Your task to perform on an android device: set the timer Image 0: 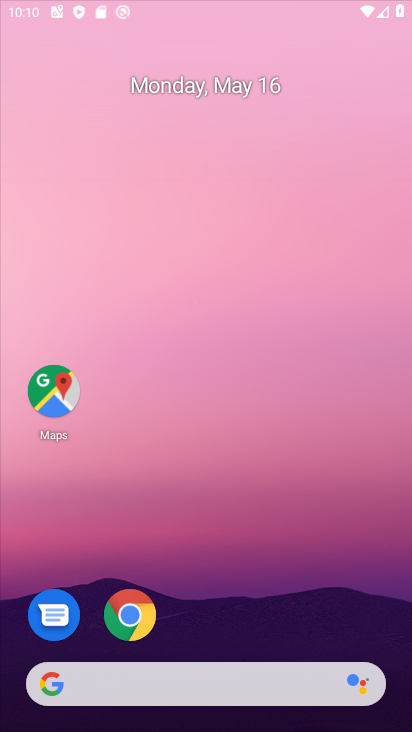
Step 0: press home button
Your task to perform on an android device: set the timer Image 1: 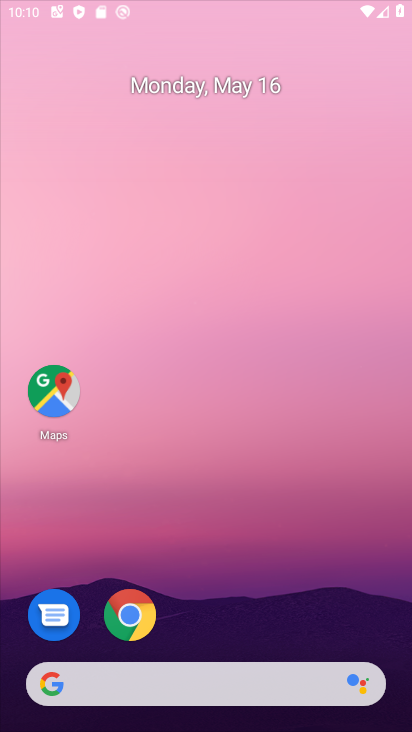
Step 1: click (245, 337)
Your task to perform on an android device: set the timer Image 2: 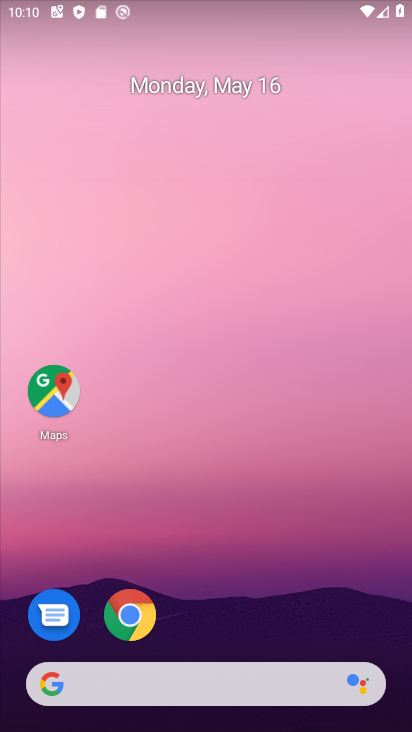
Step 2: drag from (248, 715) to (201, 192)
Your task to perform on an android device: set the timer Image 3: 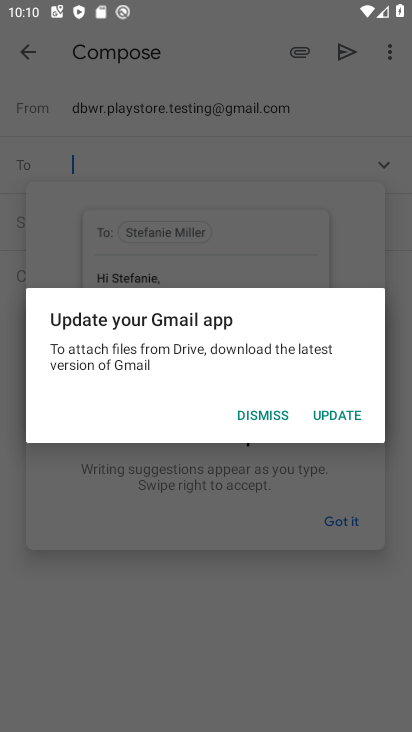
Step 3: press home button
Your task to perform on an android device: set the timer Image 4: 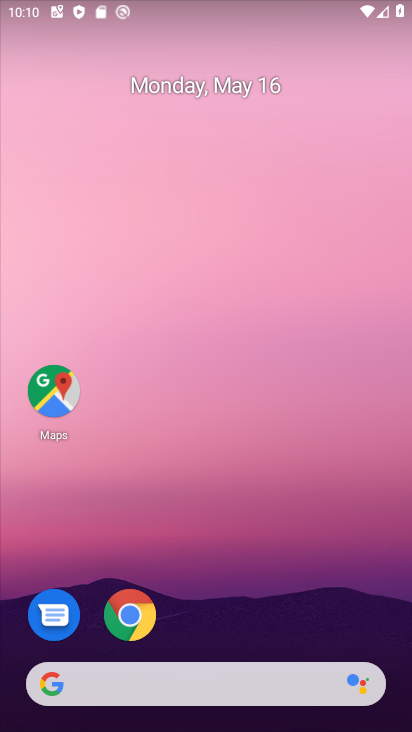
Step 4: drag from (195, 729) to (195, 146)
Your task to perform on an android device: set the timer Image 5: 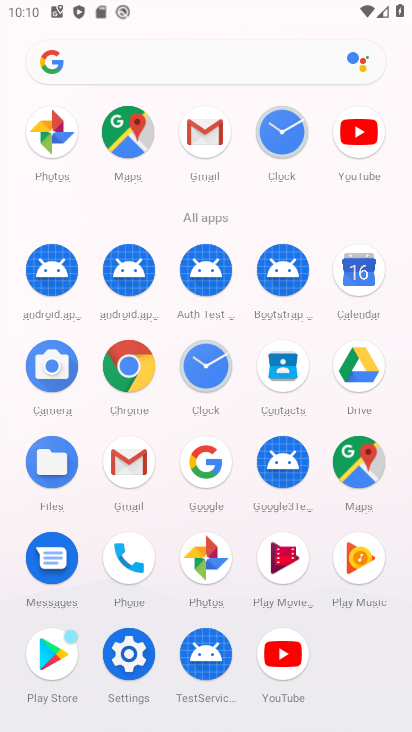
Step 5: click (207, 364)
Your task to perform on an android device: set the timer Image 6: 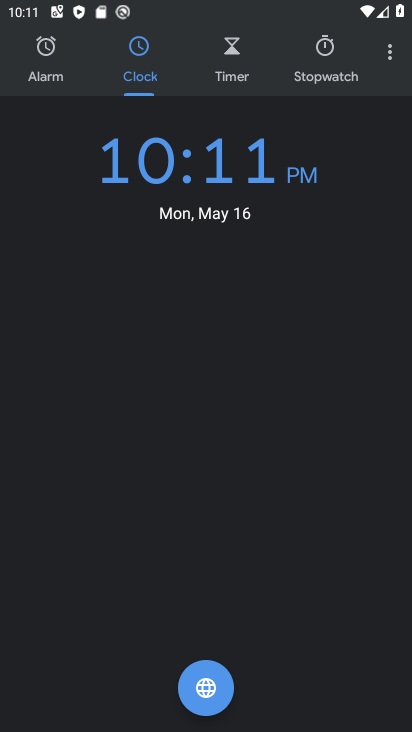
Step 6: click (375, 61)
Your task to perform on an android device: set the timer Image 7: 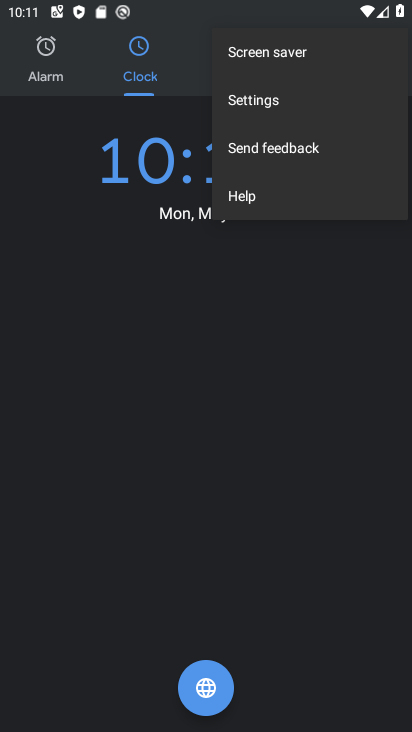
Step 7: click (227, 317)
Your task to perform on an android device: set the timer Image 8: 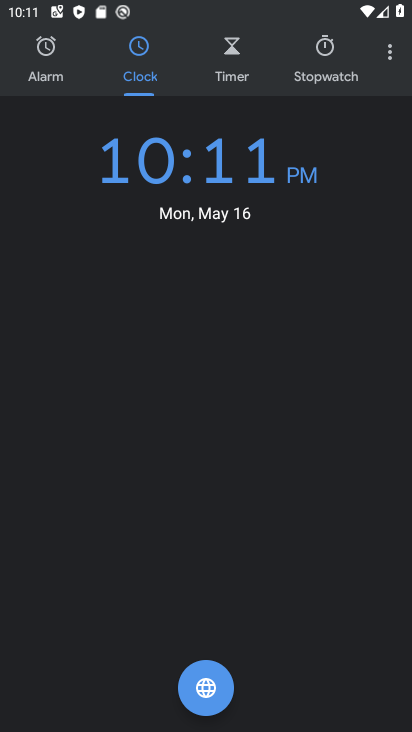
Step 8: click (237, 68)
Your task to perform on an android device: set the timer Image 9: 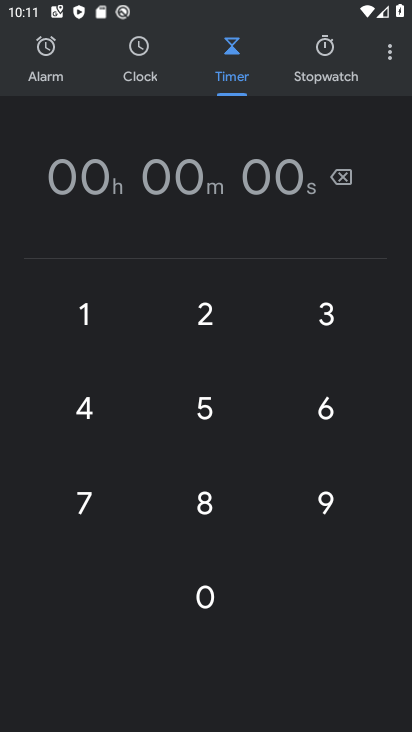
Step 9: click (113, 386)
Your task to perform on an android device: set the timer Image 10: 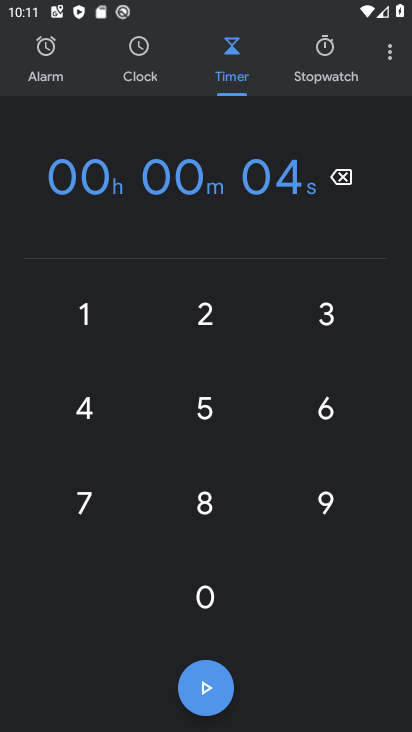
Step 10: click (214, 412)
Your task to perform on an android device: set the timer Image 11: 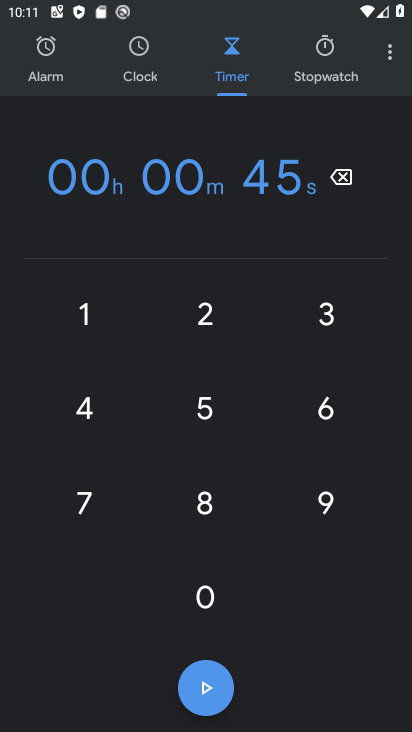
Step 11: click (219, 465)
Your task to perform on an android device: set the timer Image 12: 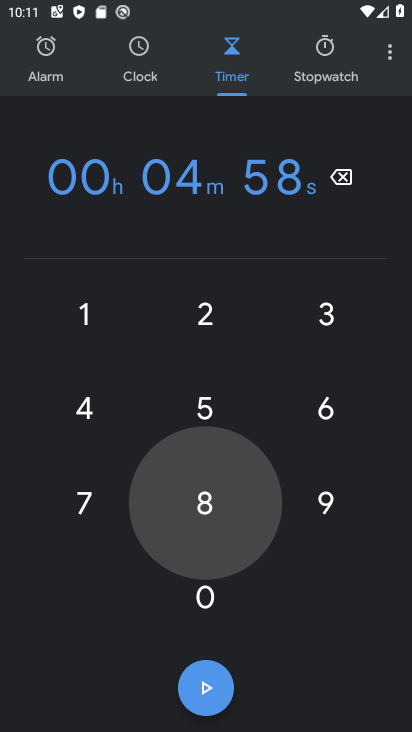
Step 12: click (201, 326)
Your task to perform on an android device: set the timer Image 13: 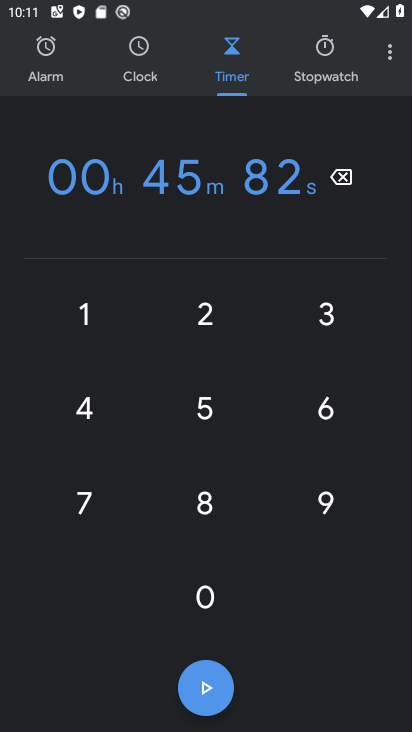
Step 13: click (325, 418)
Your task to perform on an android device: set the timer Image 14: 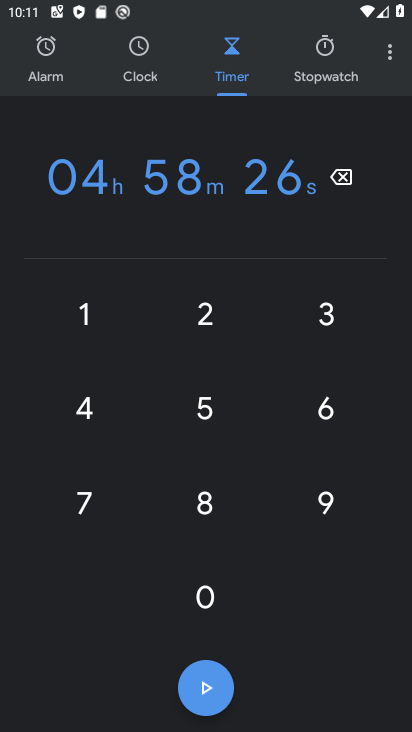
Step 14: task complete